Your task to perform on an android device: Open Yahoo.com Image 0: 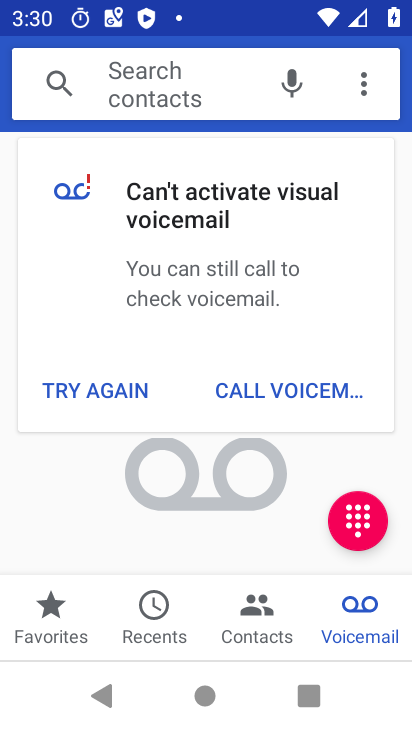
Step 0: press home button
Your task to perform on an android device: Open Yahoo.com Image 1: 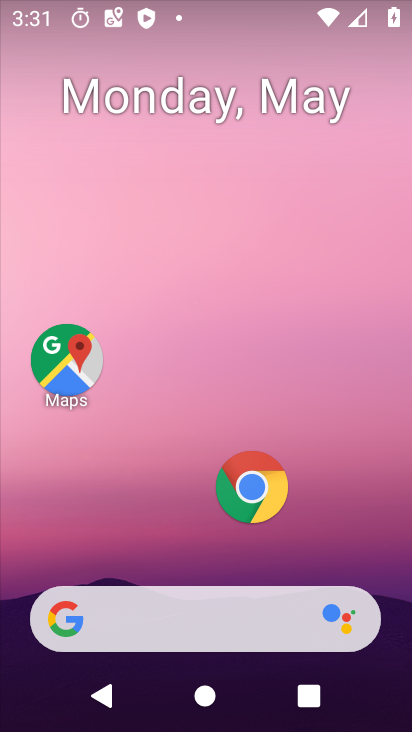
Step 1: click (269, 489)
Your task to perform on an android device: Open Yahoo.com Image 2: 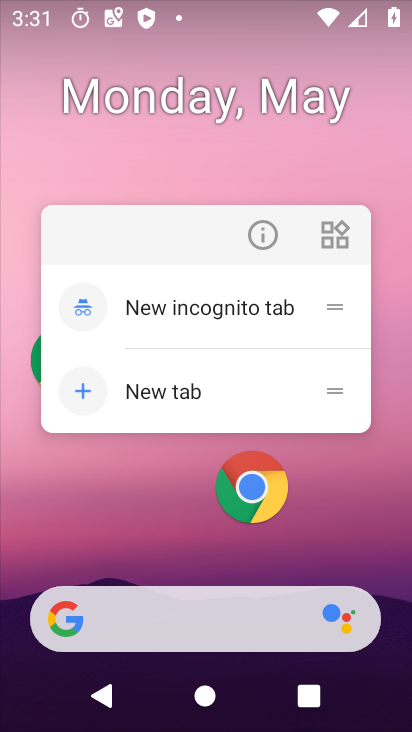
Step 2: click (263, 501)
Your task to perform on an android device: Open Yahoo.com Image 3: 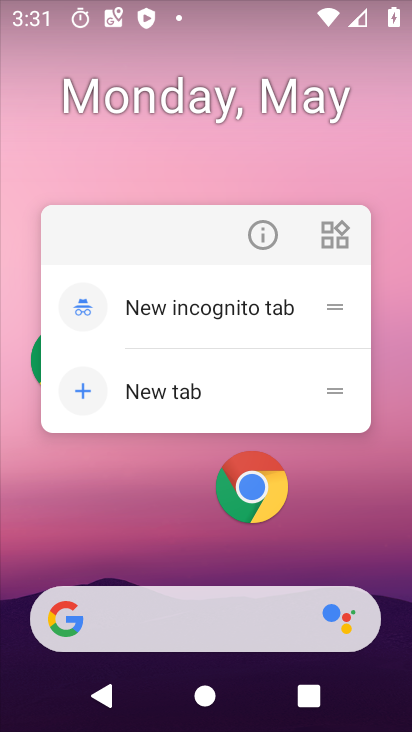
Step 3: click (248, 490)
Your task to perform on an android device: Open Yahoo.com Image 4: 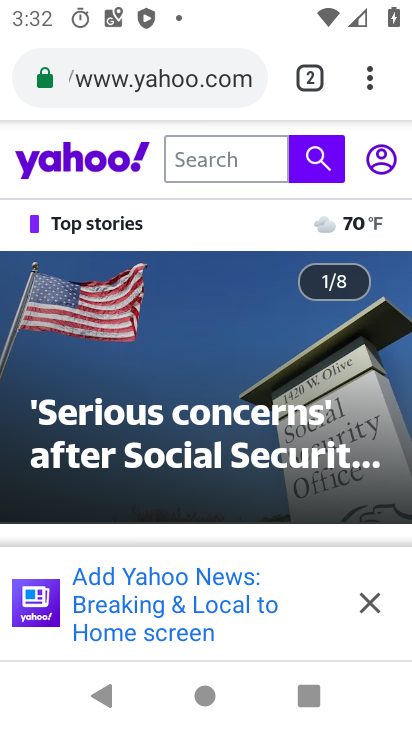
Step 4: task complete